Your task to perform on an android device: Go to Yahoo.com Image 0: 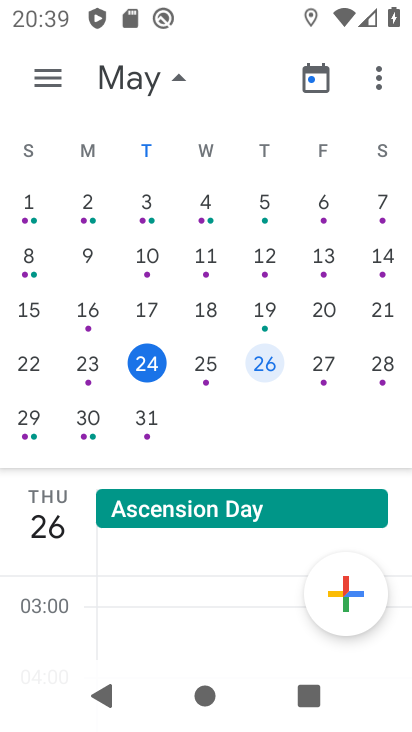
Step 0: press home button
Your task to perform on an android device: Go to Yahoo.com Image 1: 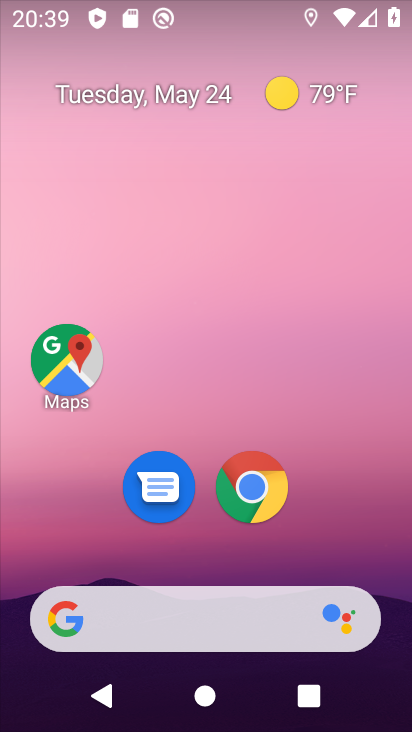
Step 1: click (255, 476)
Your task to perform on an android device: Go to Yahoo.com Image 2: 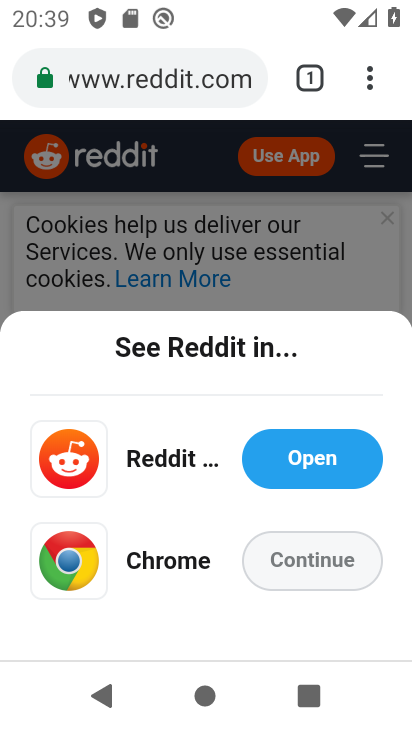
Step 2: click (221, 70)
Your task to perform on an android device: Go to Yahoo.com Image 3: 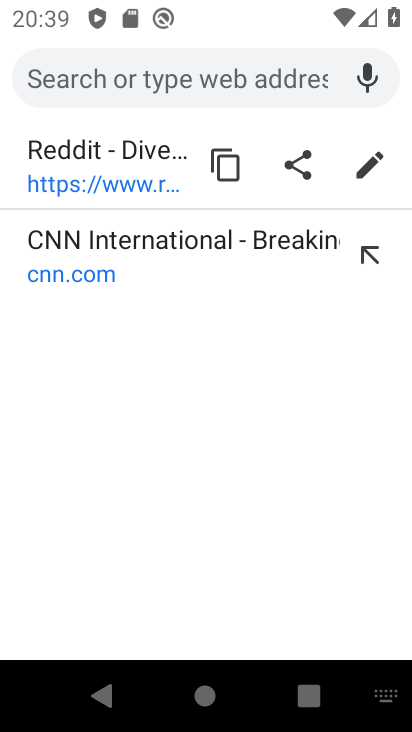
Step 3: type " Yahoo.com"
Your task to perform on an android device: Go to Yahoo.com Image 4: 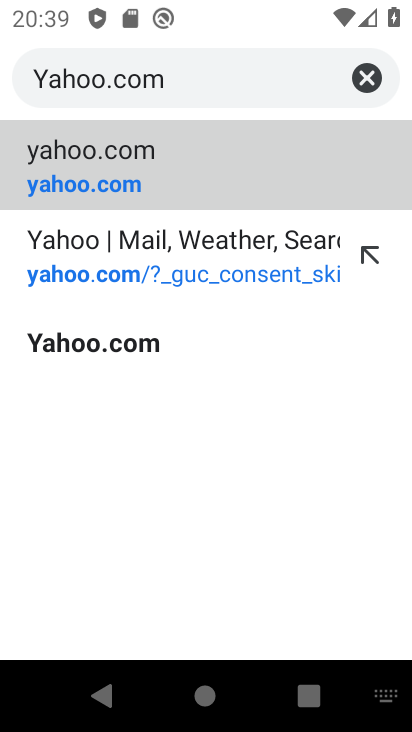
Step 4: click (117, 180)
Your task to perform on an android device: Go to Yahoo.com Image 5: 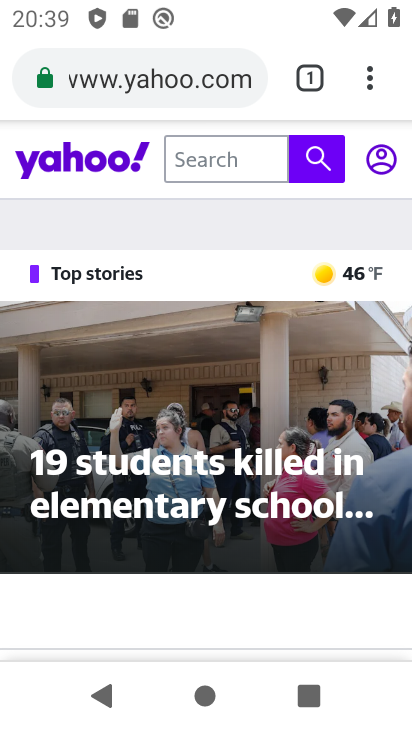
Step 5: task complete